Your task to perform on an android device: toggle show notifications on the lock screen Image 0: 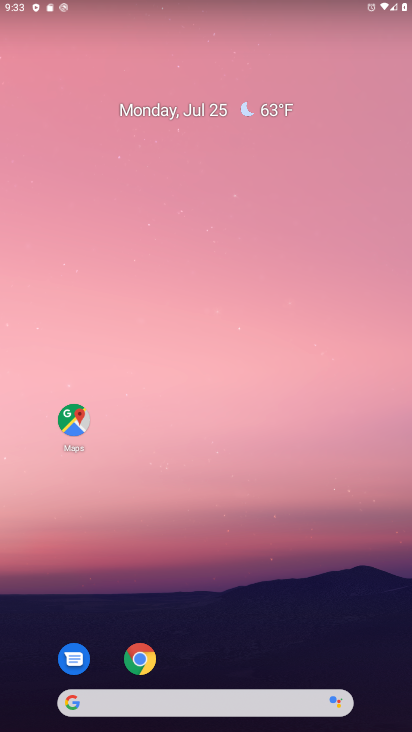
Step 0: drag from (214, 727) to (251, 73)
Your task to perform on an android device: toggle show notifications on the lock screen Image 1: 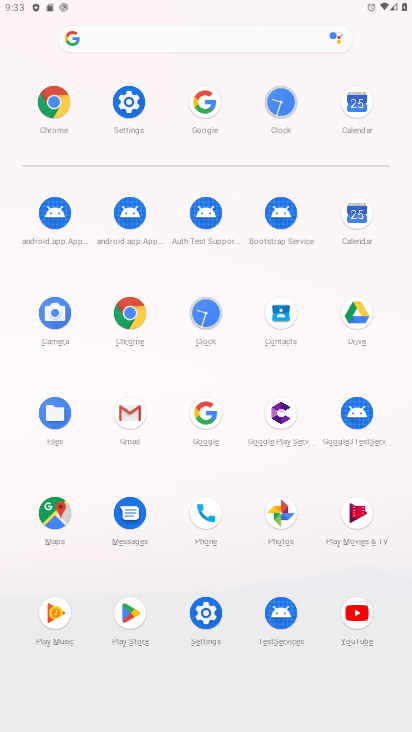
Step 1: click (123, 103)
Your task to perform on an android device: toggle show notifications on the lock screen Image 2: 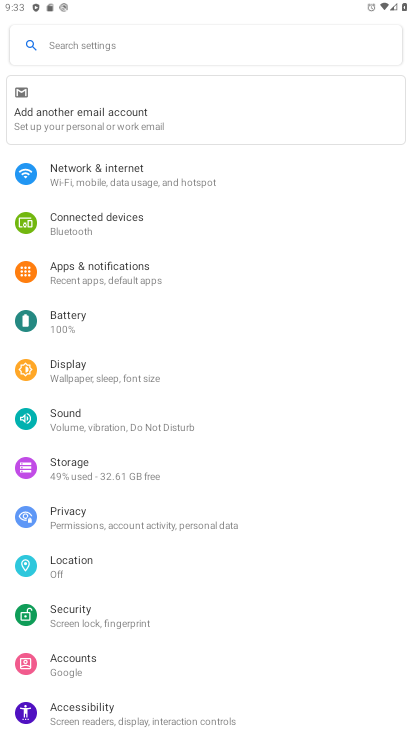
Step 2: click (108, 272)
Your task to perform on an android device: toggle show notifications on the lock screen Image 3: 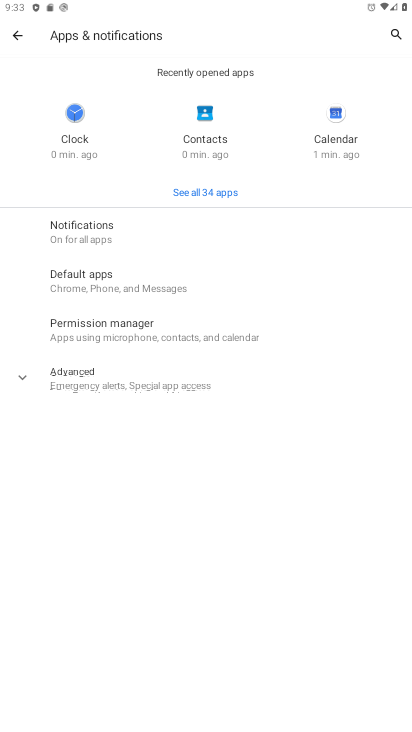
Step 3: click (75, 227)
Your task to perform on an android device: toggle show notifications on the lock screen Image 4: 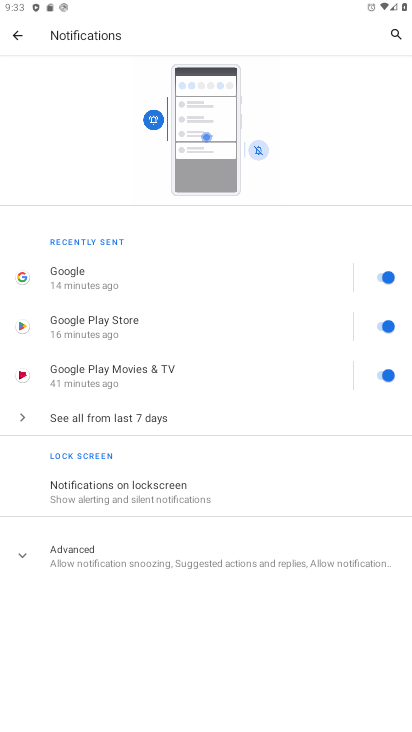
Step 4: click (86, 492)
Your task to perform on an android device: toggle show notifications on the lock screen Image 5: 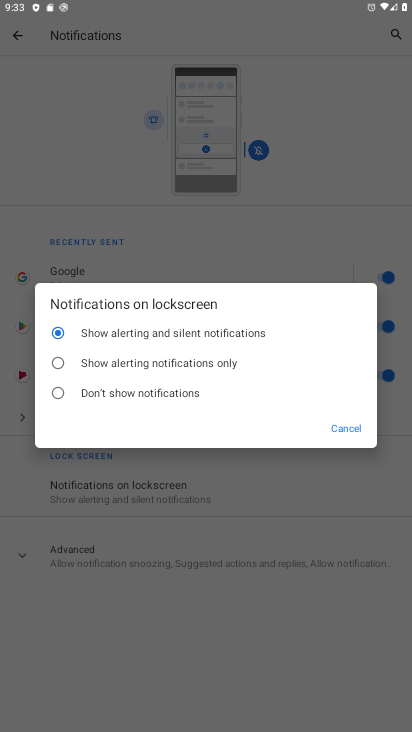
Step 5: click (54, 362)
Your task to perform on an android device: toggle show notifications on the lock screen Image 6: 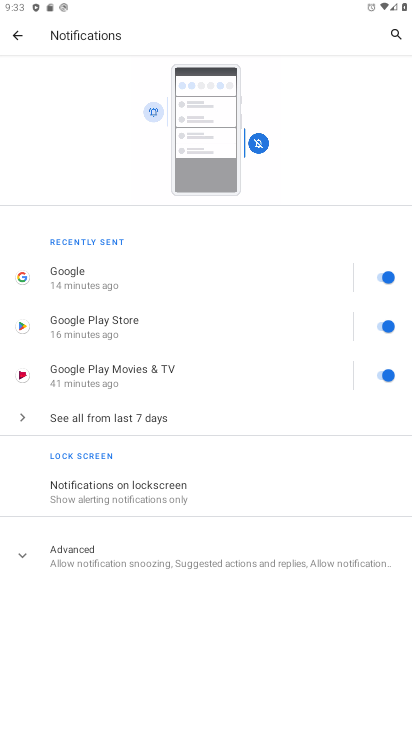
Step 6: task complete